Your task to perform on an android device: Find coffee shops on Maps Image 0: 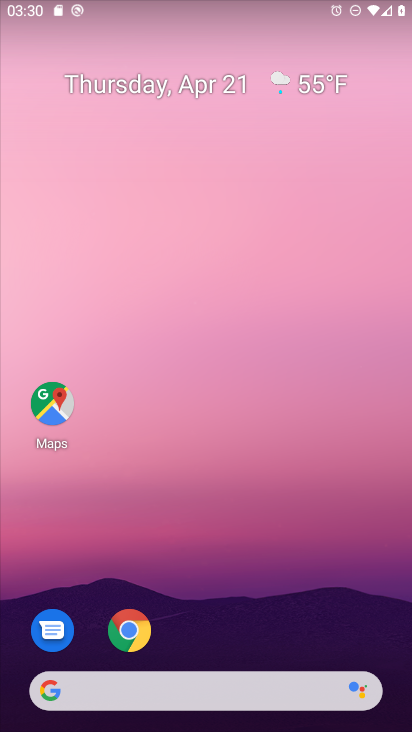
Step 0: click (43, 418)
Your task to perform on an android device: Find coffee shops on Maps Image 1: 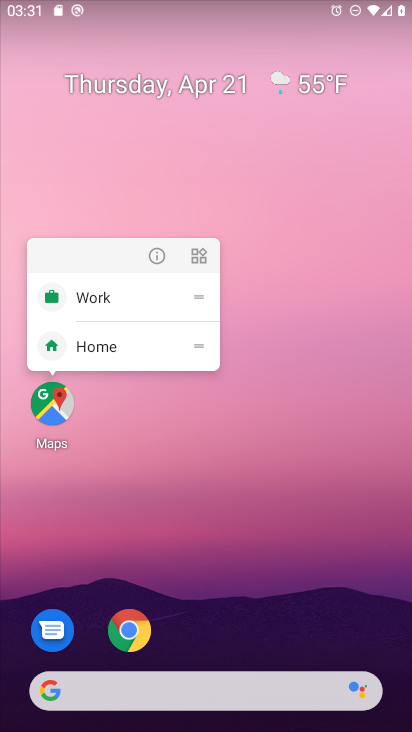
Step 1: click (44, 415)
Your task to perform on an android device: Find coffee shops on Maps Image 2: 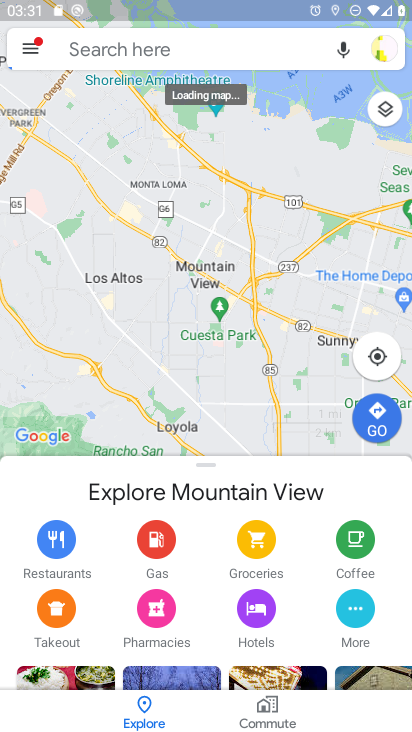
Step 2: click (225, 37)
Your task to perform on an android device: Find coffee shops on Maps Image 3: 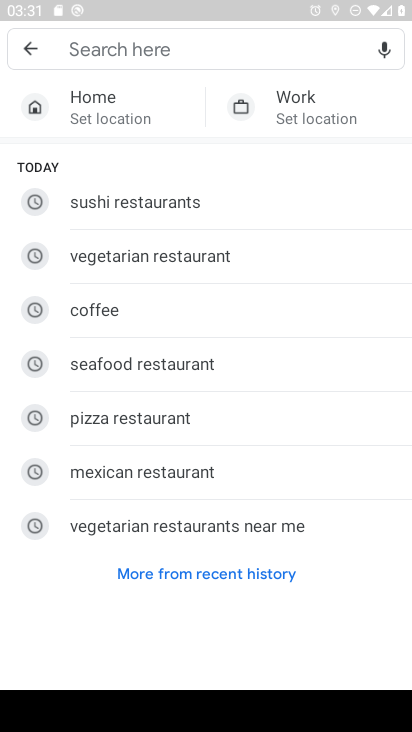
Step 3: click (232, 318)
Your task to perform on an android device: Find coffee shops on Maps Image 4: 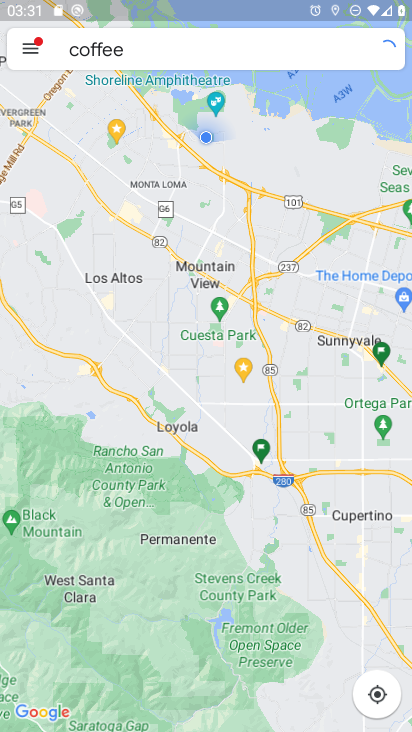
Step 4: task complete